Your task to perform on an android device: turn pop-ups on in chrome Image 0: 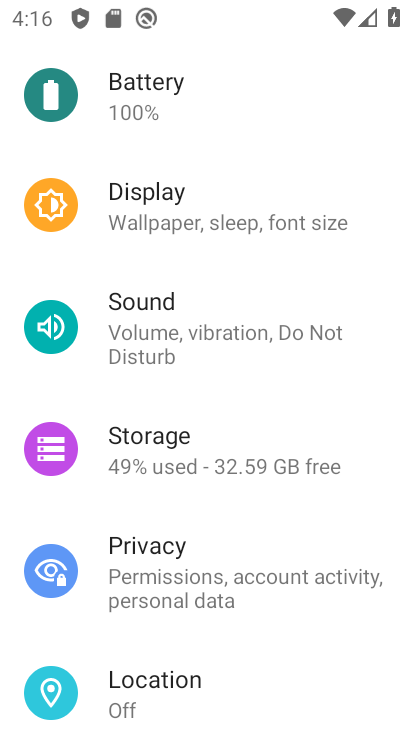
Step 0: press home button
Your task to perform on an android device: turn pop-ups on in chrome Image 1: 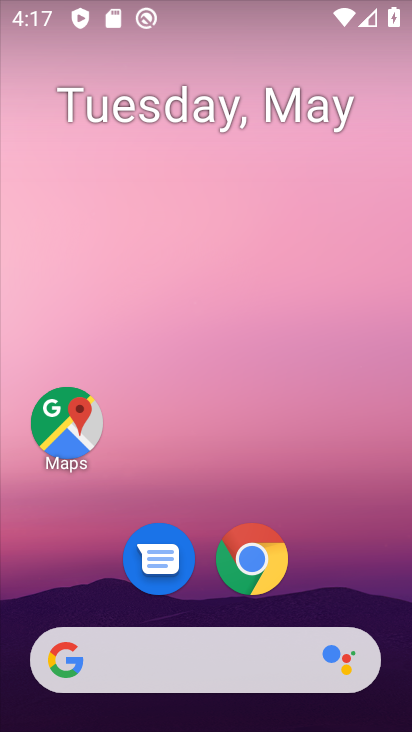
Step 1: click (259, 547)
Your task to perform on an android device: turn pop-ups on in chrome Image 2: 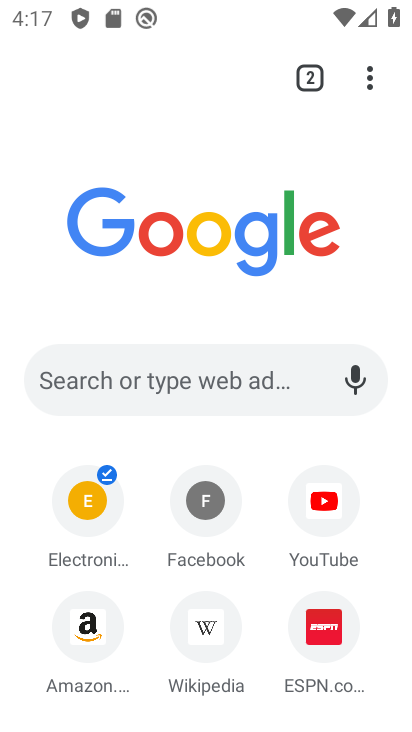
Step 2: click (377, 82)
Your task to perform on an android device: turn pop-ups on in chrome Image 3: 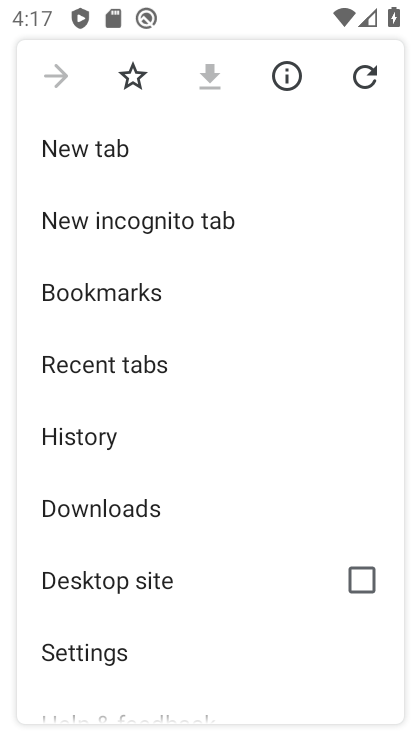
Step 3: drag from (217, 637) to (218, 260)
Your task to perform on an android device: turn pop-ups on in chrome Image 4: 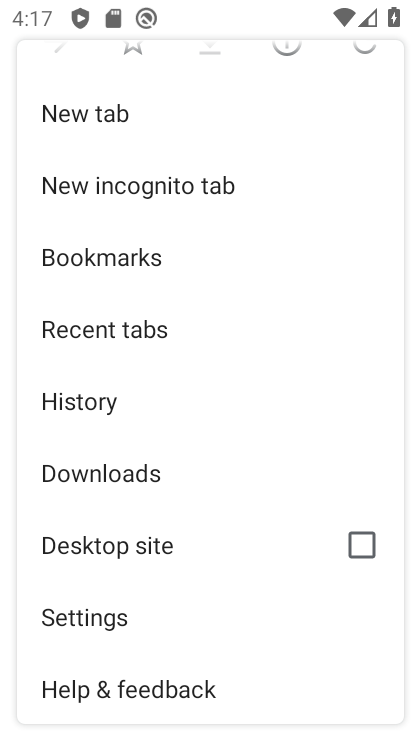
Step 4: click (119, 608)
Your task to perform on an android device: turn pop-ups on in chrome Image 5: 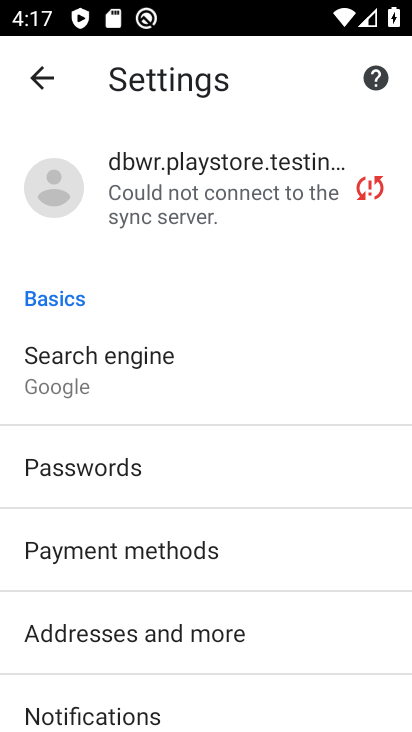
Step 5: drag from (191, 560) to (198, 211)
Your task to perform on an android device: turn pop-ups on in chrome Image 6: 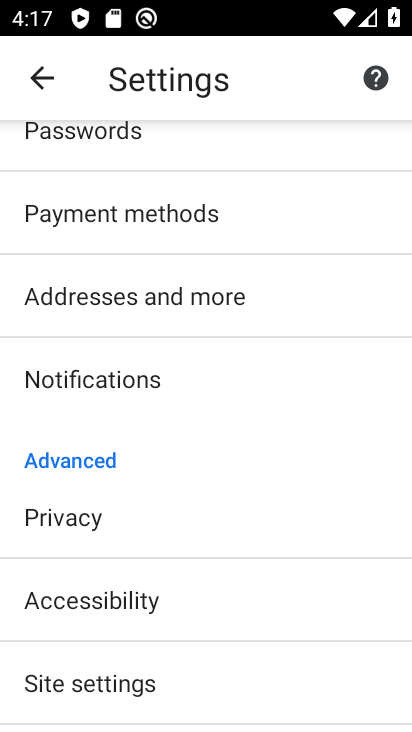
Step 6: click (155, 660)
Your task to perform on an android device: turn pop-ups on in chrome Image 7: 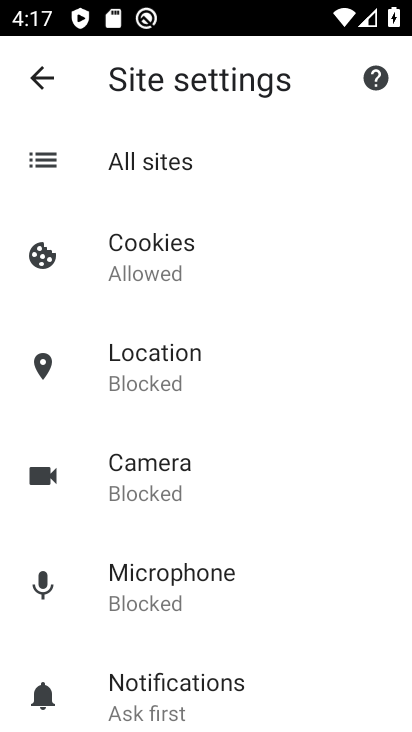
Step 7: drag from (173, 585) to (193, 191)
Your task to perform on an android device: turn pop-ups on in chrome Image 8: 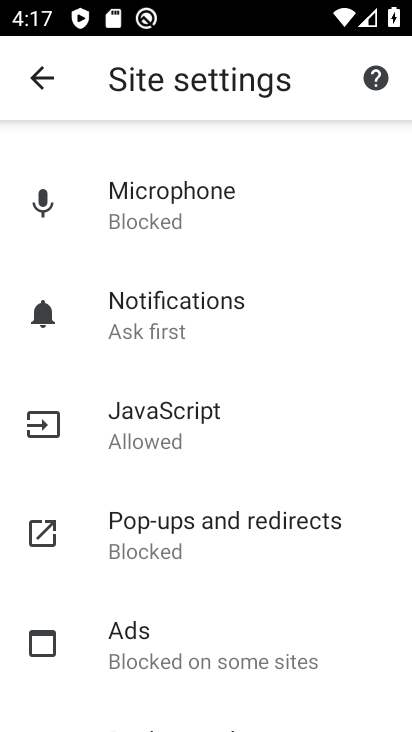
Step 8: click (206, 536)
Your task to perform on an android device: turn pop-ups on in chrome Image 9: 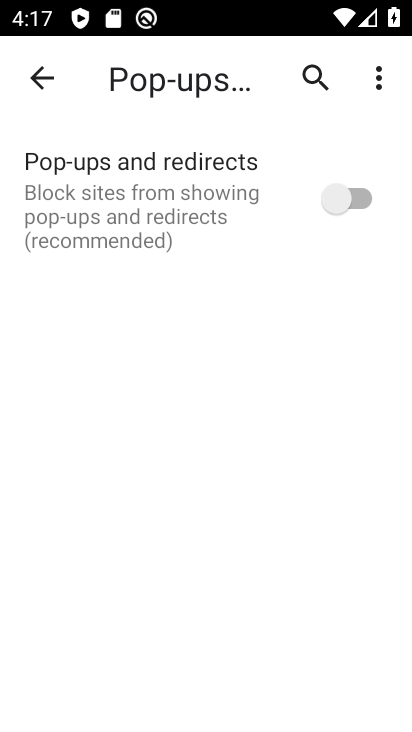
Step 9: click (362, 195)
Your task to perform on an android device: turn pop-ups on in chrome Image 10: 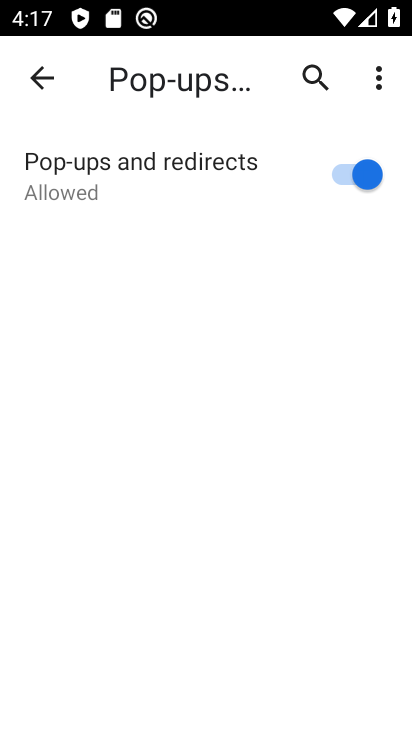
Step 10: task complete